Your task to perform on an android device: change keyboard looks Image 0: 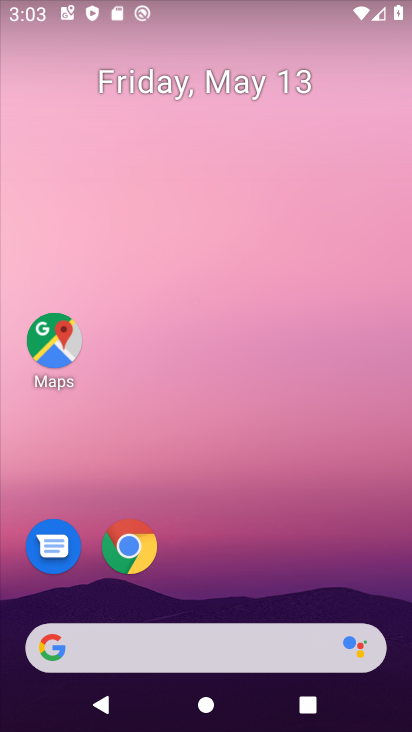
Step 0: drag from (184, 609) to (412, 0)
Your task to perform on an android device: change keyboard looks Image 1: 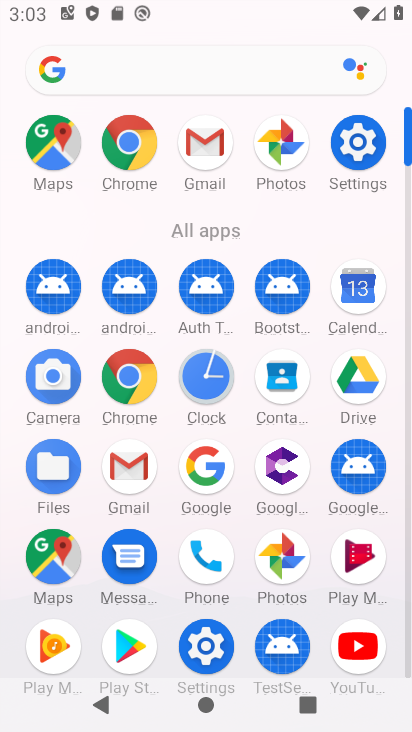
Step 1: click (379, 206)
Your task to perform on an android device: change keyboard looks Image 2: 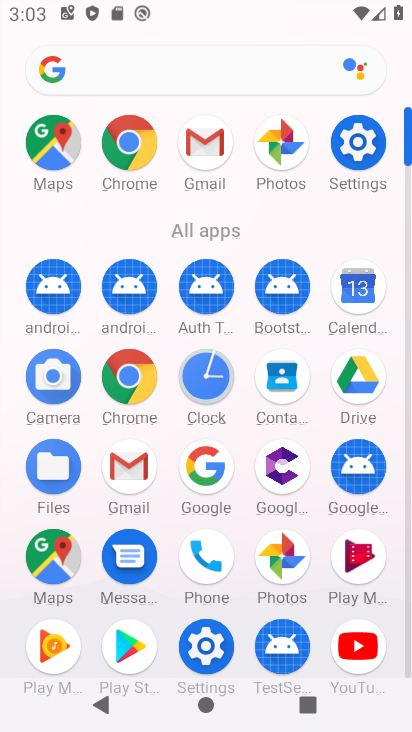
Step 2: click (347, 123)
Your task to perform on an android device: change keyboard looks Image 3: 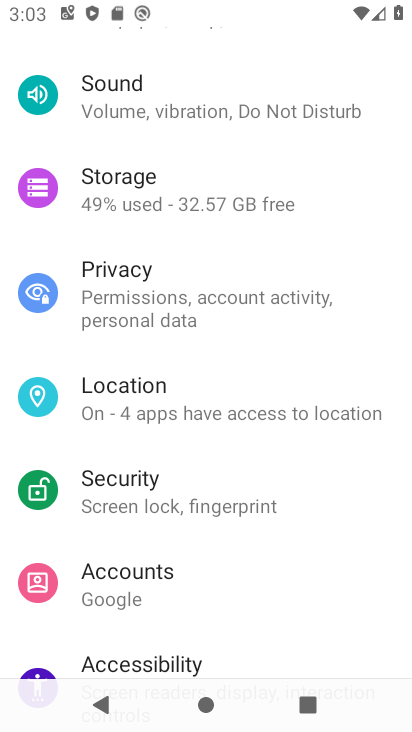
Step 3: drag from (112, 606) to (206, 96)
Your task to perform on an android device: change keyboard looks Image 4: 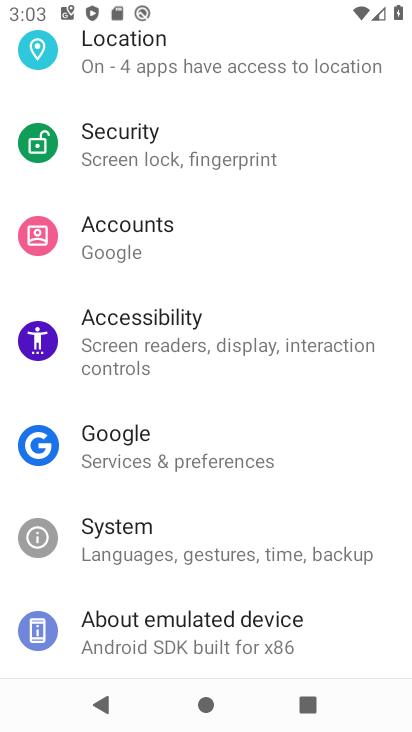
Step 4: click (160, 534)
Your task to perform on an android device: change keyboard looks Image 5: 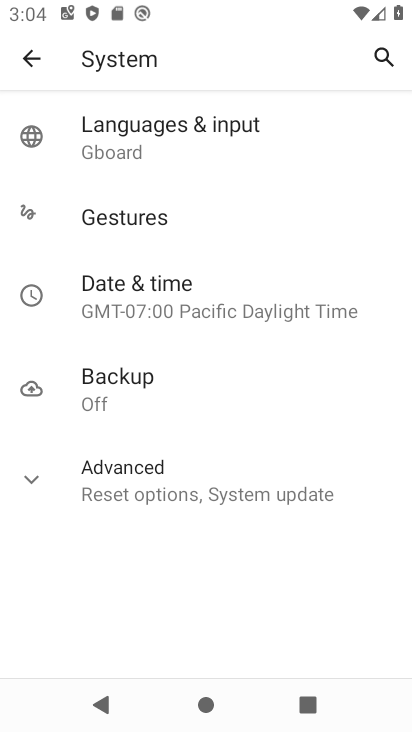
Step 5: click (160, 534)
Your task to perform on an android device: change keyboard looks Image 6: 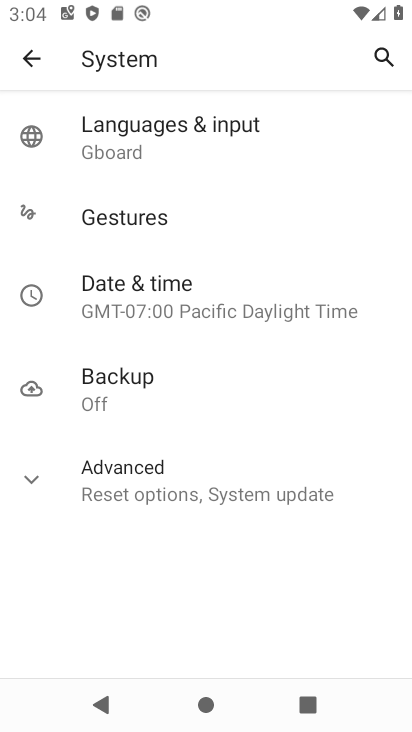
Step 6: click (152, 135)
Your task to perform on an android device: change keyboard looks Image 7: 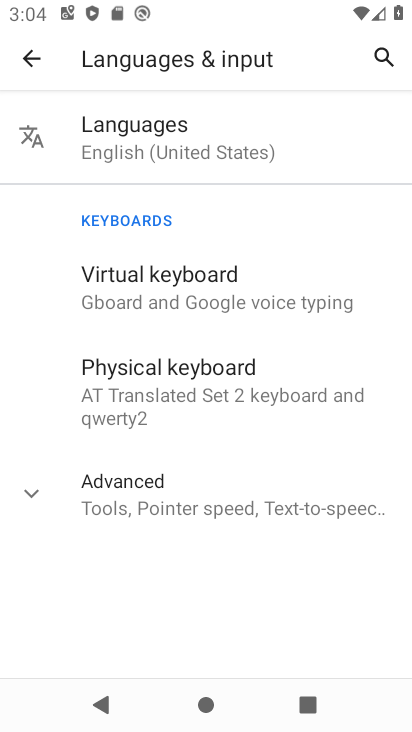
Step 7: click (198, 296)
Your task to perform on an android device: change keyboard looks Image 8: 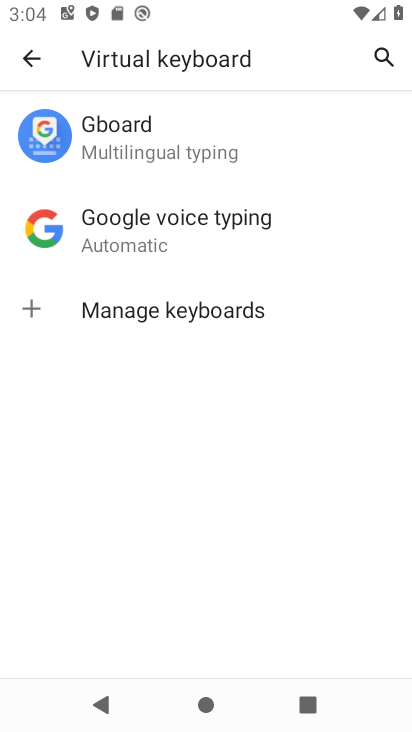
Step 8: click (159, 169)
Your task to perform on an android device: change keyboard looks Image 9: 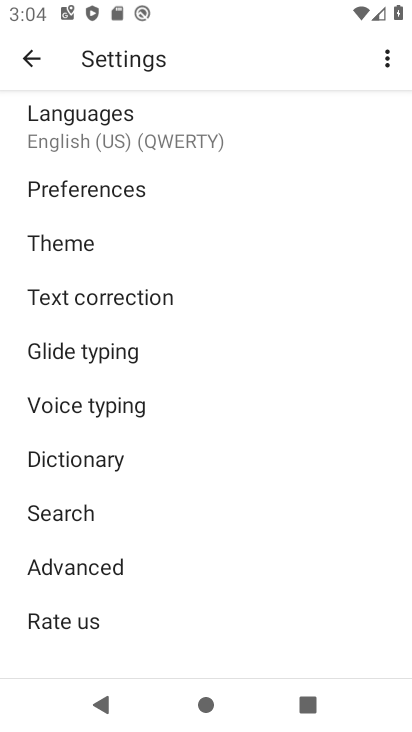
Step 9: click (92, 240)
Your task to perform on an android device: change keyboard looks Image 10: 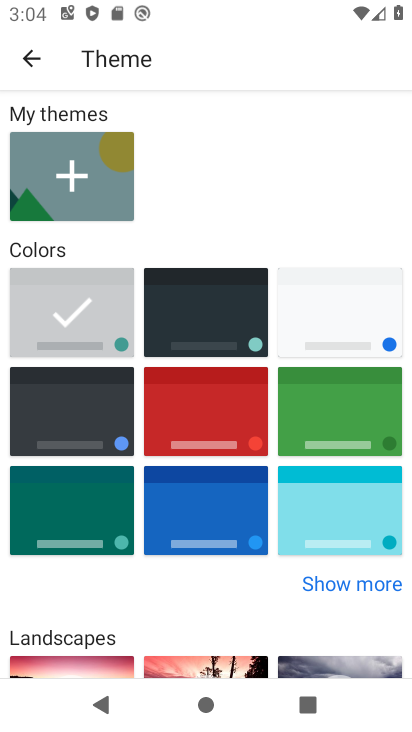
Step 10: click (210, 420)
Your task to perform on an android device: change keyboard looks Image 11: 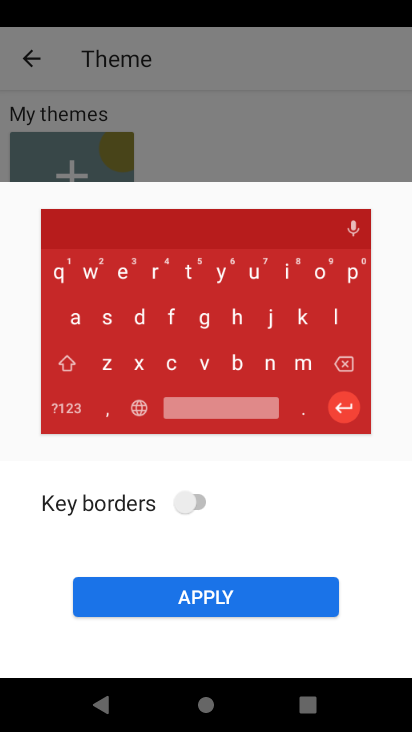
Step 11: click (196, 496)
Your task to perform on an android device: change keyboard looks Image 12: 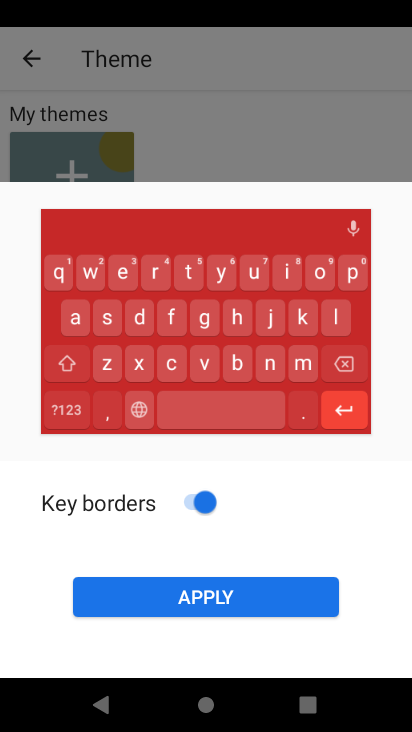
Step 12: click (285, 579)
Your task to perform on an android device: change keyboard looks Image 13: 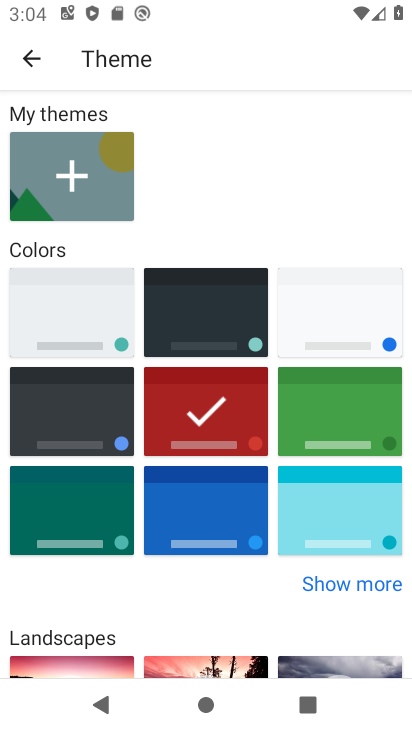
Step 13: task complete